Your task to perform on an android device: turn off picture-in-picture Image 0: 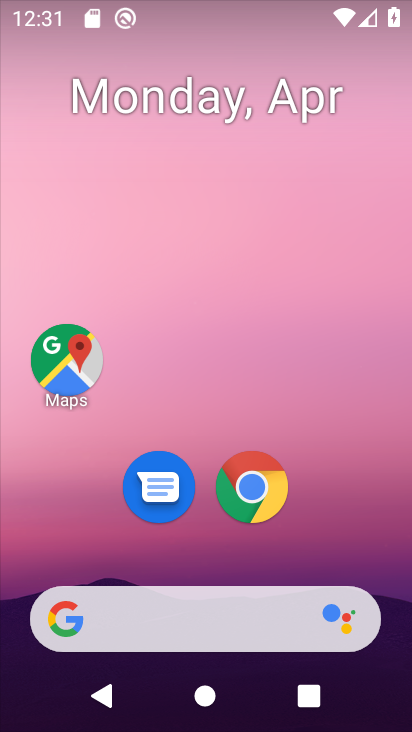
Step 0: drag from (396, 627) to (280, 63)
Your task to perform on an android device: turn off picture-in-picture Image 1: 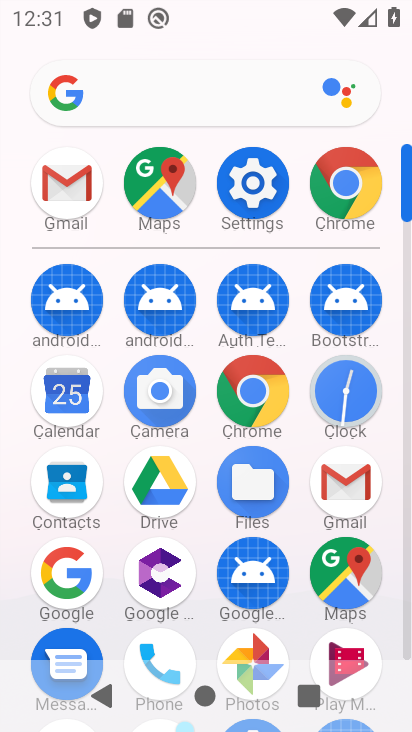
Step 1: click (345, 188)
Your task to perform on an android device: turn off picture-in-picture Image 2: 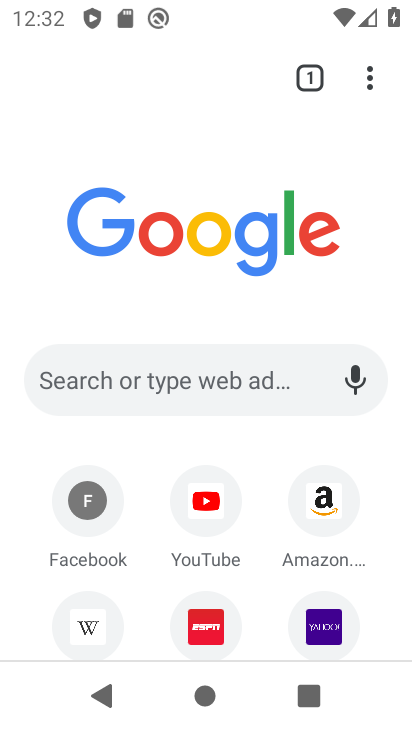
Step 2: task complete